Your task to perform on an android device: star an email in the gmail app Image 0: 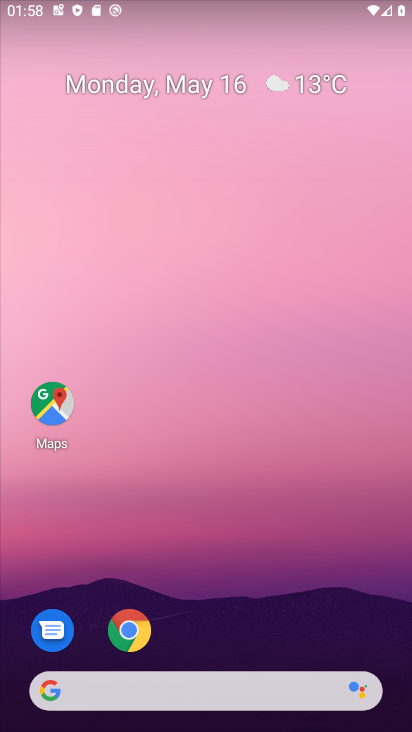
Step 0: drag from (334, 601) to (315, 95)
Your task to perform on an android device: star an email in the gmail app Image 1: 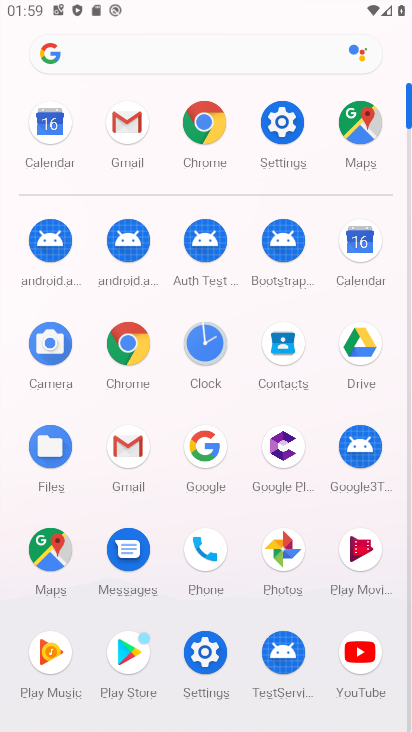
Step 1: click (128, 438)
Your task to perform on an android device: star an email in the gmail app Image 2: 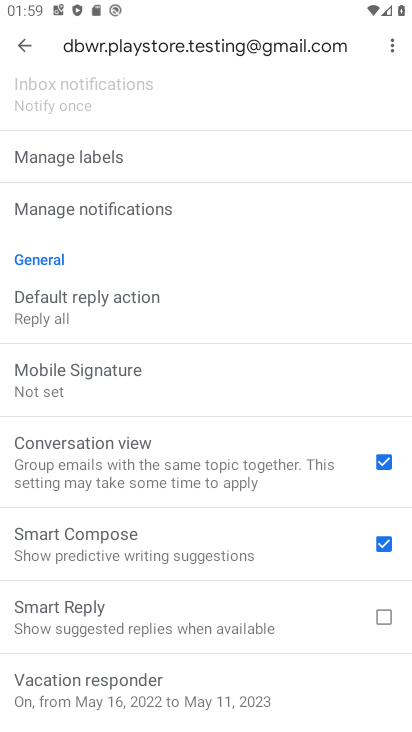
Step 2: click (26, 36)
Your task to perform on an android device: star an email in the gmail app Image 3: 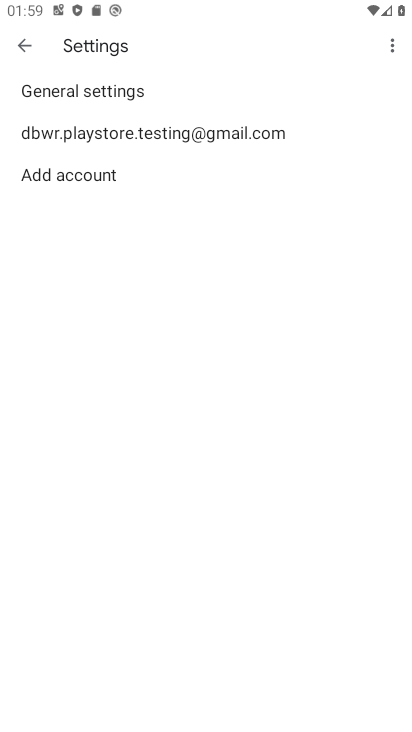
Step 3: click (27, 37)
Your task to perform on an android device: star an email in the gmail app Image 4: 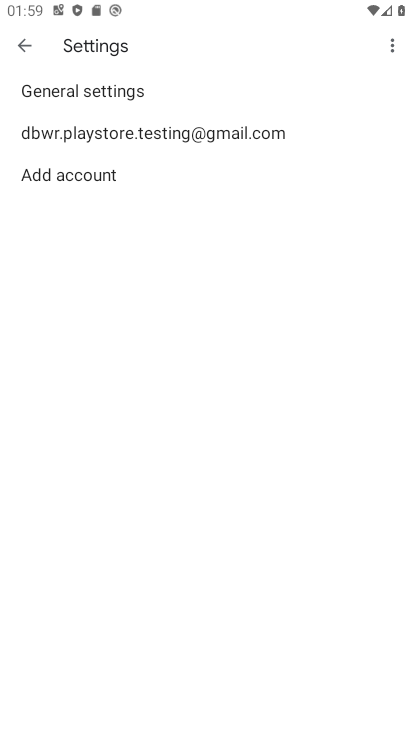
Step 4: click (27, 37)
Your task to perform on an android device: star an email in the gmail app Image 5: 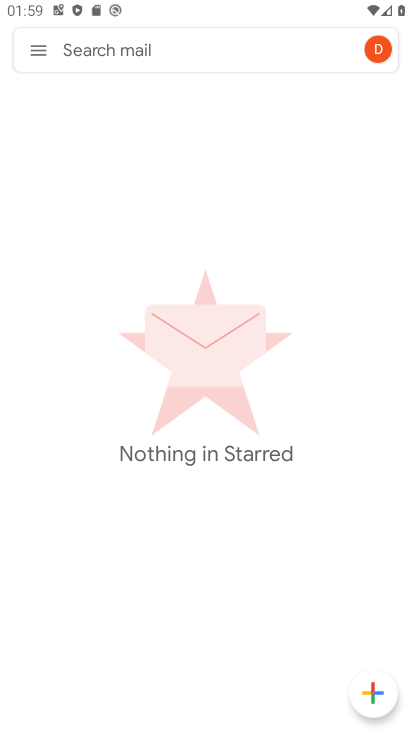
Step 5: click (43, 53)
Your task to perform on an android device: star an email in the gmail app Image 6: 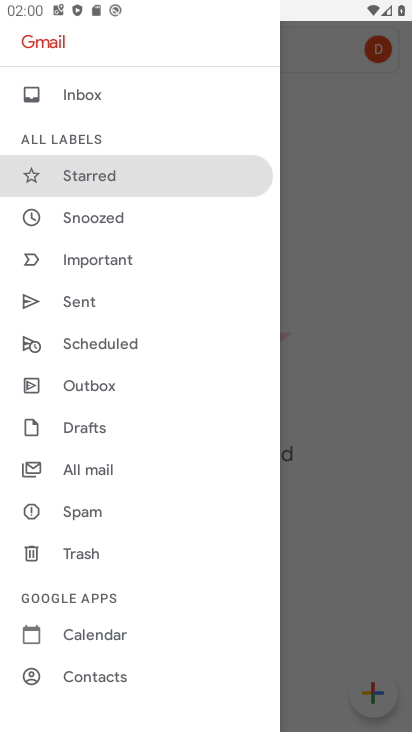
Step 6: task complete